Your task to perform on an android device: turn off sleep mode Image 0: 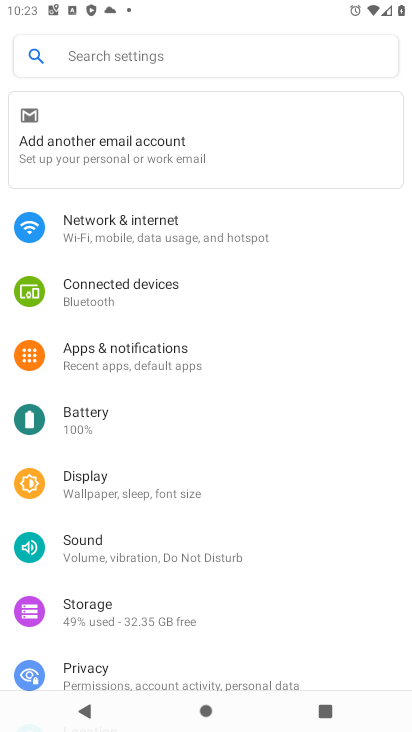
Step 0: click (76, 484)
Your task to perform on an android device: turn off sleep mode Image 1: 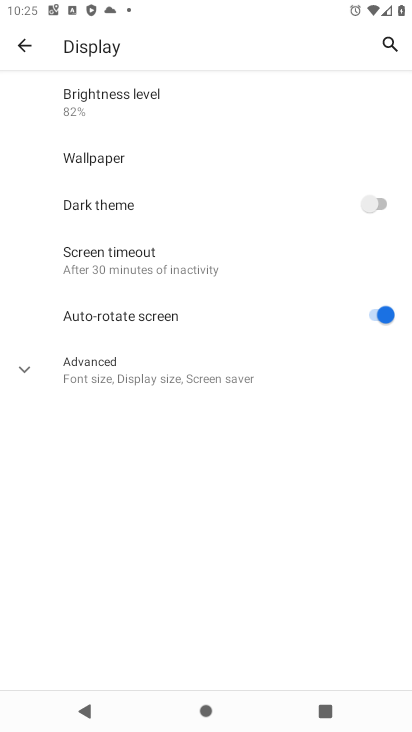
Step 1: click (116, 257)
Your task to perform on an android device: turn off sleep mode Image 2: 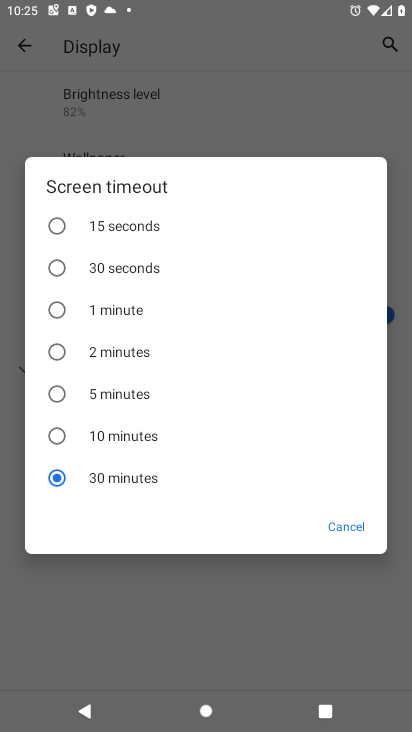
Step 2: task complete